Your task to perform on an android device: turn off sleep mode Image 0: 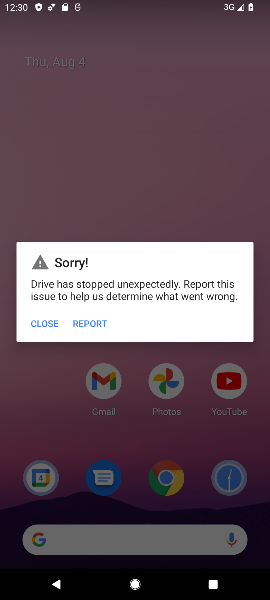
Step 0: press home button
Your task to perform on an android device: turn off sleep mode Image 1: 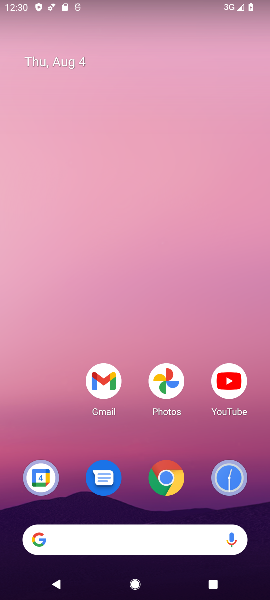
Step 1: drag from (149, 495) to (173, 61)
Your task to perform on an android device: turn off sleep mode Image 2: 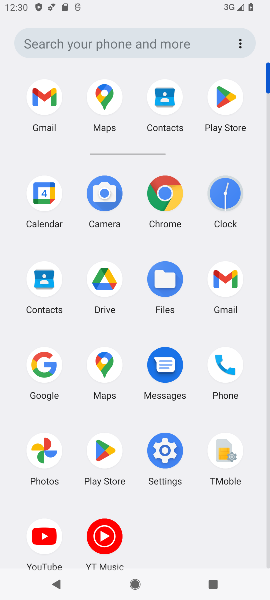
Step 2: click (160, 438)
Your task to perform on an android device: turn off sleep mode Image 3: 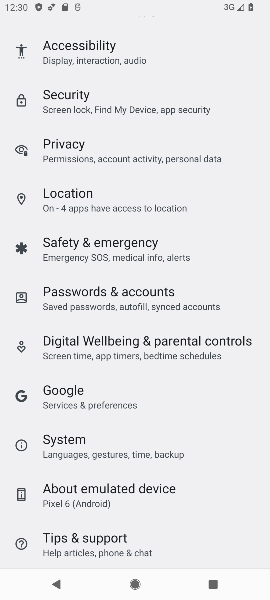
Step 3: drag from (127, 89) to (104, 466)
Your task to perform on an android device: turn off sleep mode Image 4: 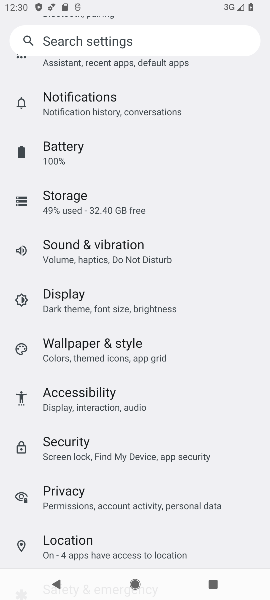
Step 4: drag from (124, 126) to (81, 345)
Your task to perform on an android device: turn off sleep mode Image 5: 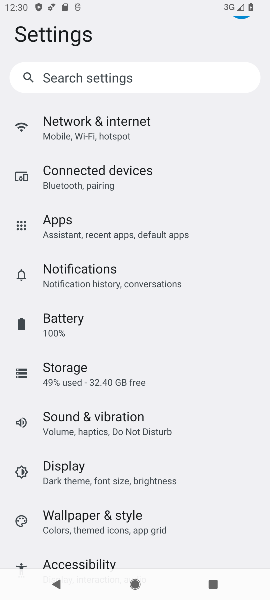
Step 5: click (81, 474)
Your task to perform on an android device: turn off sleep mode Image 6: 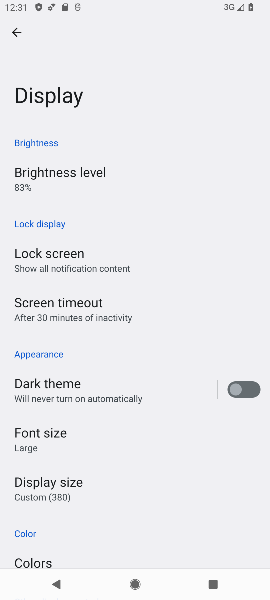
Step 6: click (52, 301)
Your task to perform on an android device: turn off sleep mode Image 7: 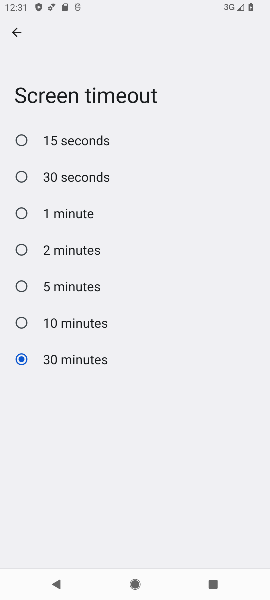
Step 7: task complete